Your task to perform on an android device: Open eBay Image 0: 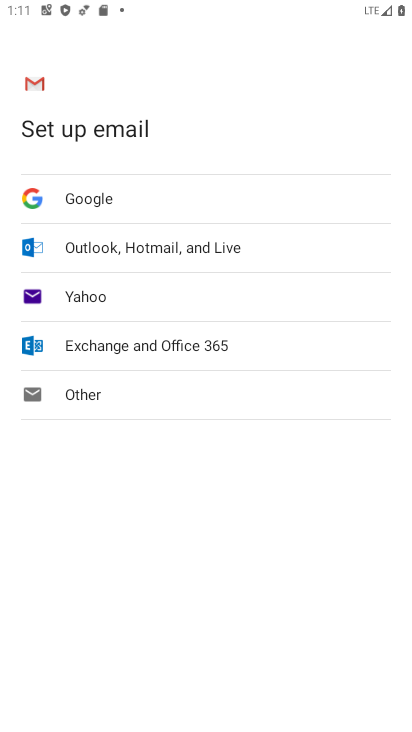
Step 0: press home button
Your task to perform on an android device: Open eBay Image 1: 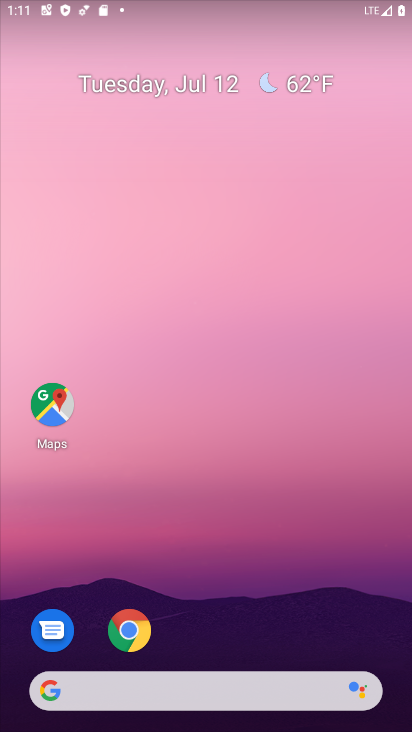
Step 1: drag from (239, 622) to (219, 93)
Your task to perform on an android device: Open eBay Image 2: 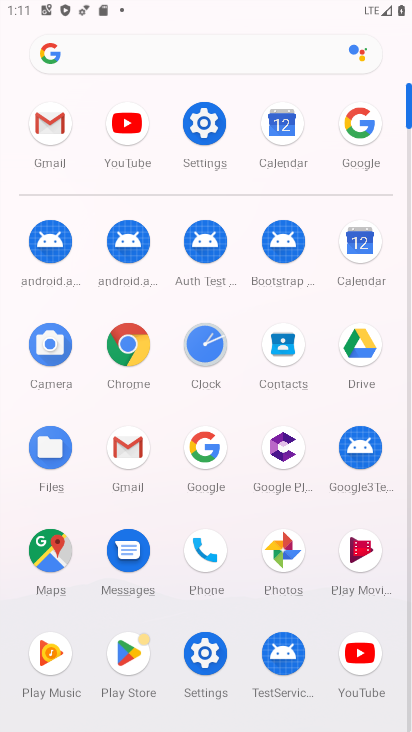
Step 2: click (359, 122)
Your task to perform on an android device: Open eBay Image 3: 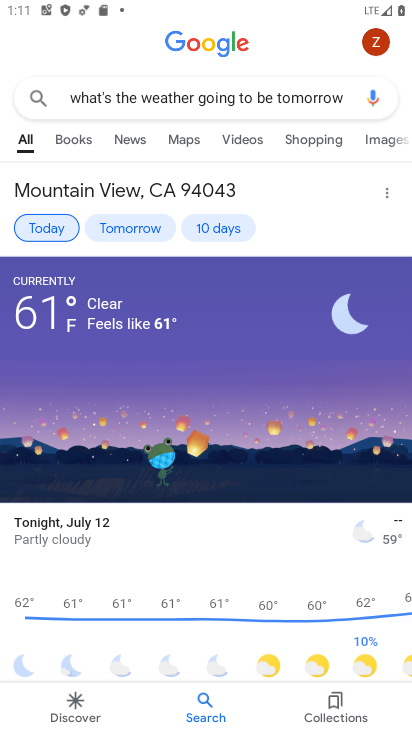
Step 3: click (334, 96)
Your task to perform on an android device: Open eBay Image 4: 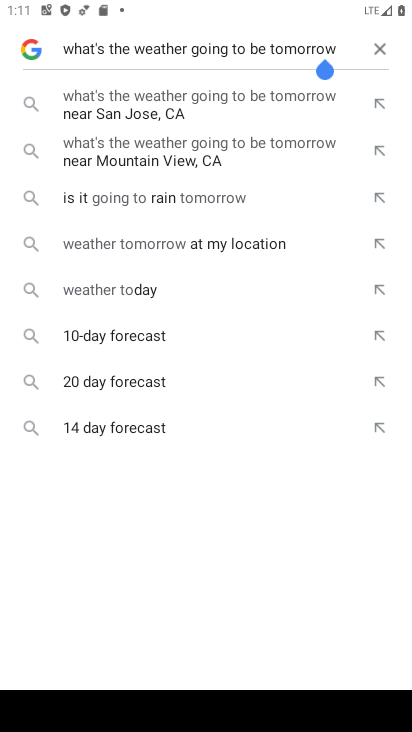
Step 4: click (379, 49)
Your task to perform on an android device: Open eBay Image 5: 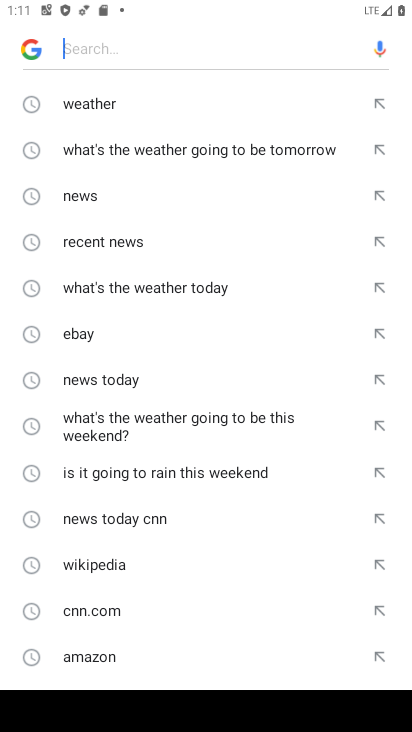
Step 5: type "ebay"
Your task to perform on an android device: Open eBay Image 6: 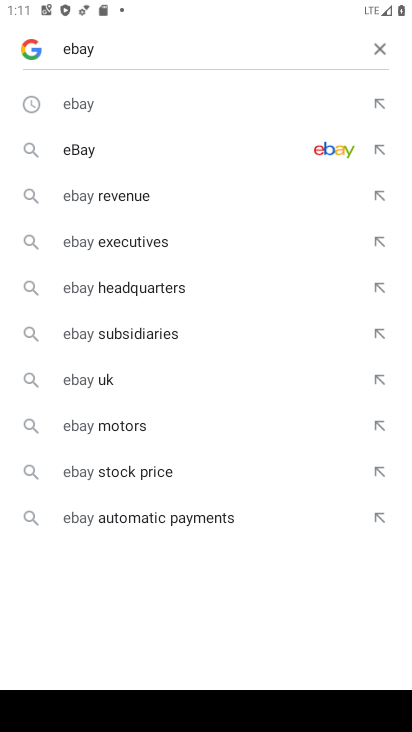
Step 6: click (102, 150)
Your task to perform on an android device: Open eBay Image 7: 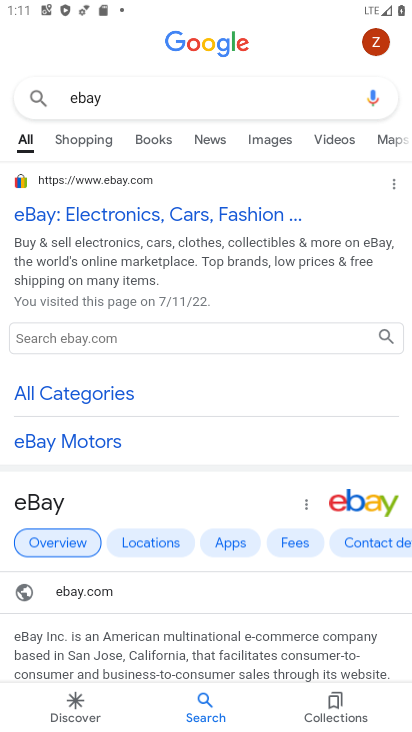
Step 7: click (170, 215)
Your task to perform on an android device: Open eBay Image 8: 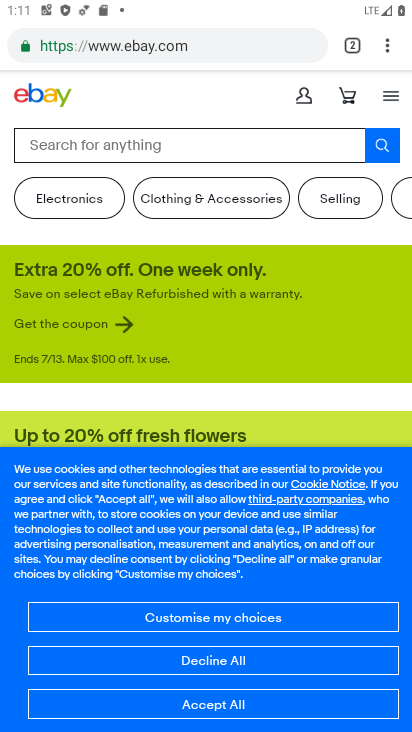
Step 8: task complete